Your task to perform on an android device: toggle priority inbox in the gmail app Image 0: 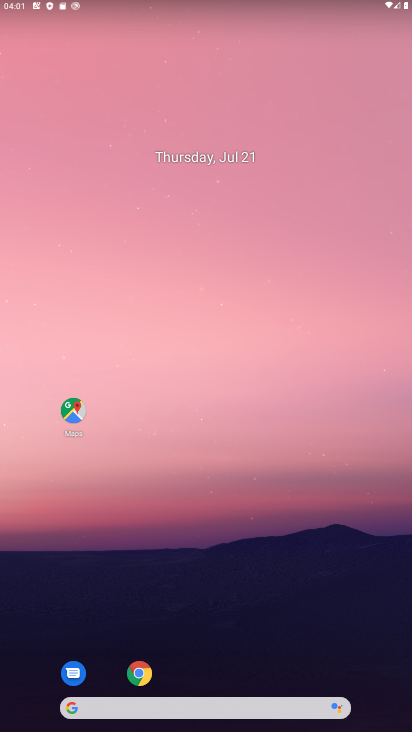
Step 0: drag from (359, 602) to (373, 159)
Your task to perform on an android device: toggle priority inbox in the gmail app Image 1: 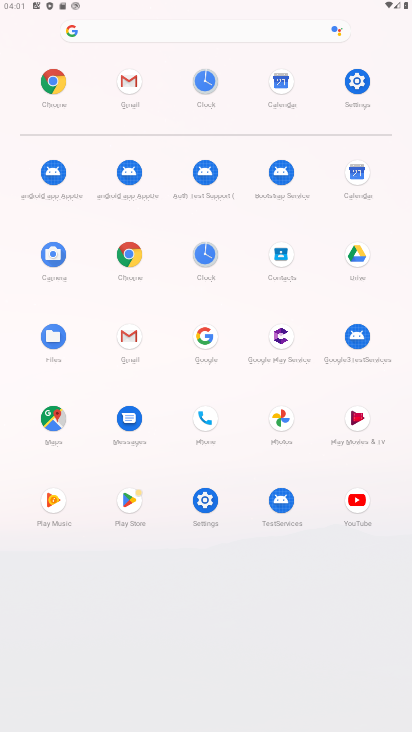
Step 1: click (125, 78)
Your task to perform on an android device: toggle priority inbox in the gmail app Image 2: 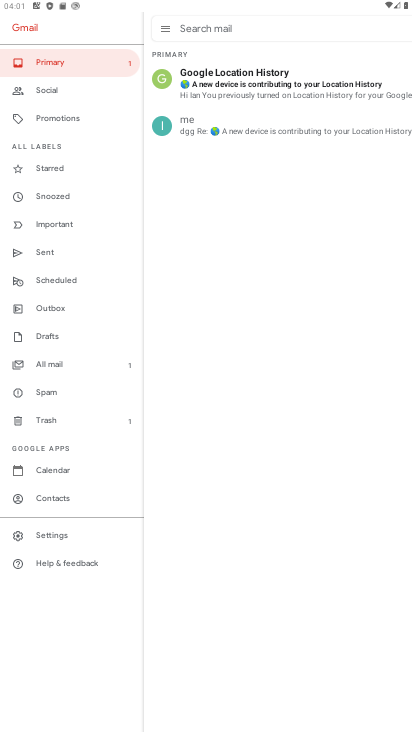
Step 2: click (49, 535)
Your task to perform on an android device: toggle priority inbox in the gmail app Image 3: 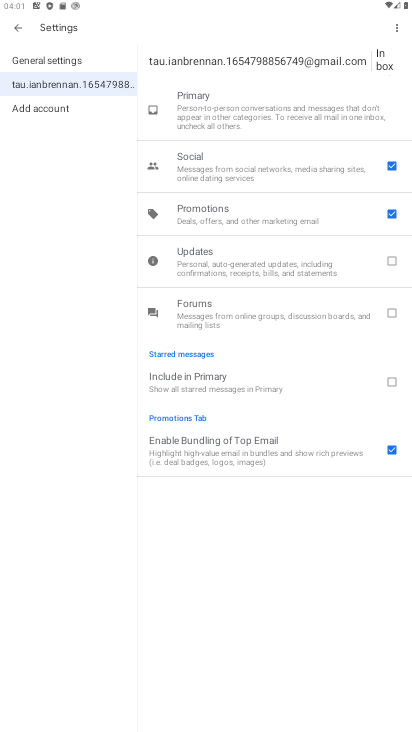
Step 3: click (117, 84)
Your task to perform on an android device: toggle priority inbox in the gmail app Image 4: 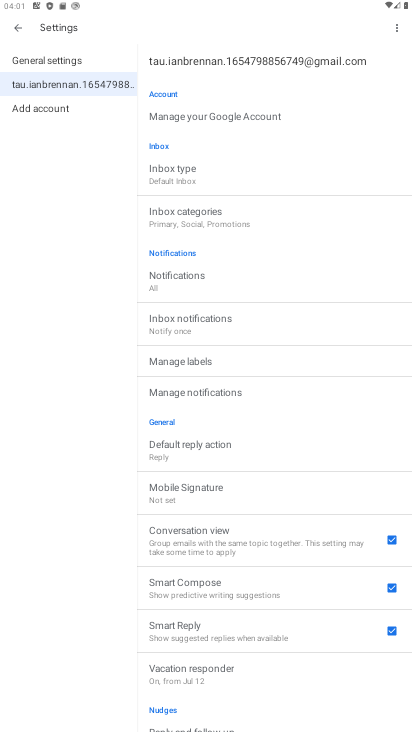
Step 4: click (187, 182)
Your task to perform on an android device: toggle priority inbox in the gmail app Image 5: 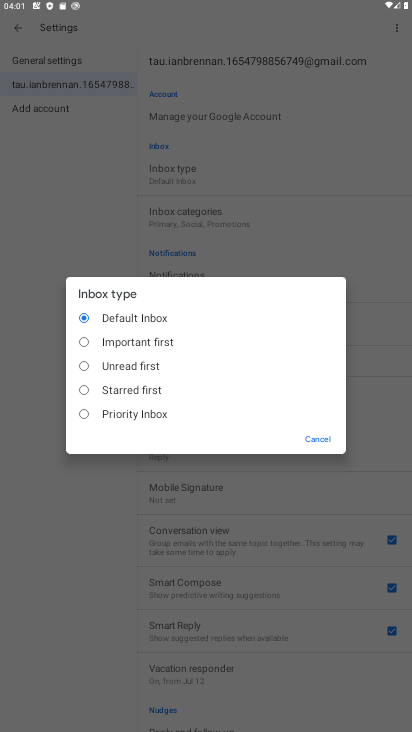
Step 5: click (122, 418)
Your task to perform on an android device: toggle priority inbox in the gmail app Image 6: 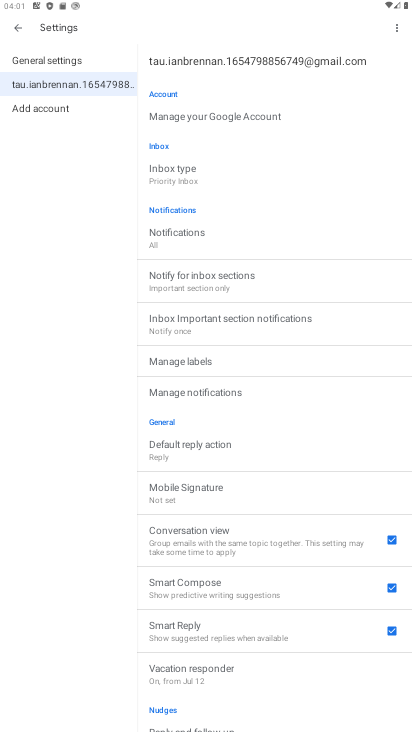
Step 6: task complete